Your task to perform on an android device: add a label to a message in the gmail app Image 0: 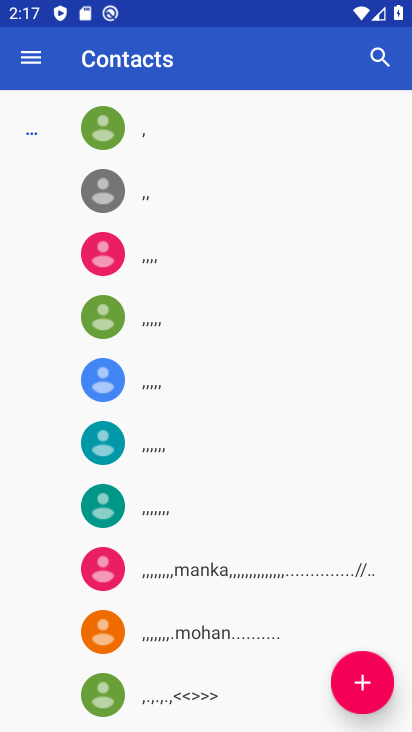
Step 0: press home button
Your task to perform on an android device: add a label to a message in the gmail app Image 1: 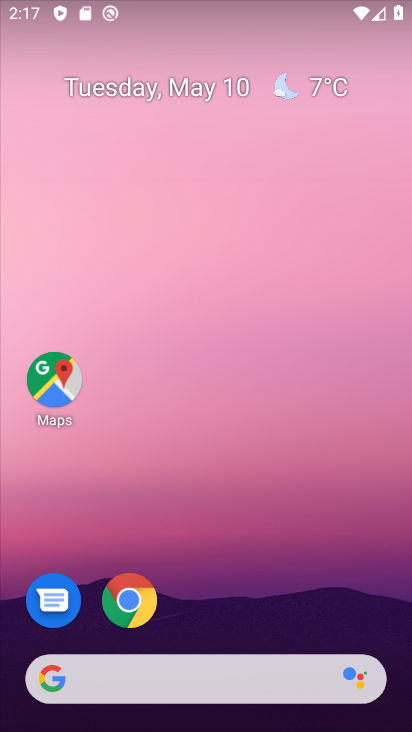
Step 1: drag from (219, 634) to (184, 212)
Your task to perform on an android device: add a label to a message in the gmail app Image 2: 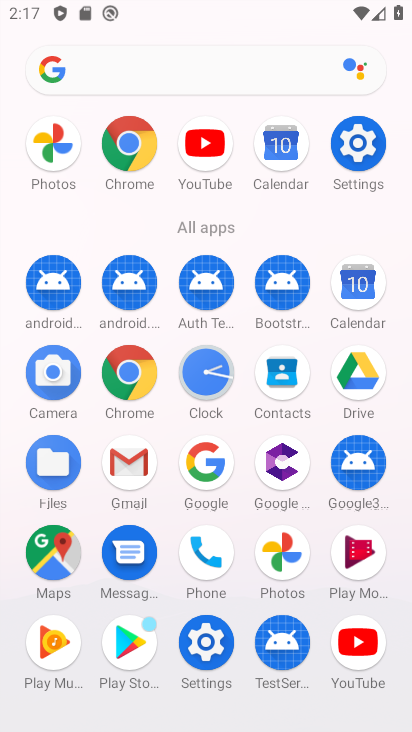
Step 2: click (136, 482)
Your task to perform on an android device: add a label to a message in the gmail app Image 3: 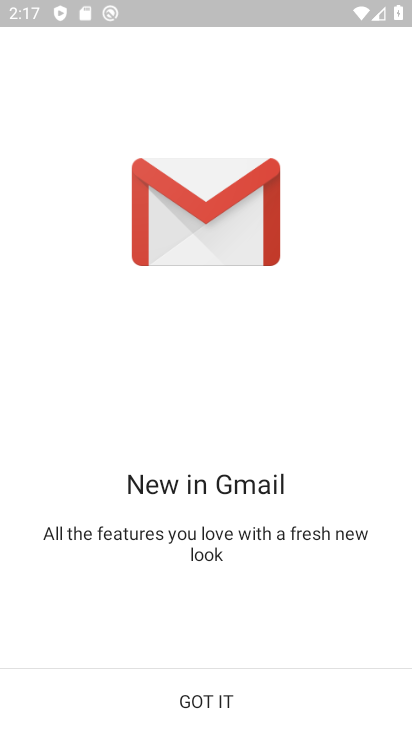
Step 3: press home button
Your task to perform on an android device: add a label to a message in the gmail app Image 4: 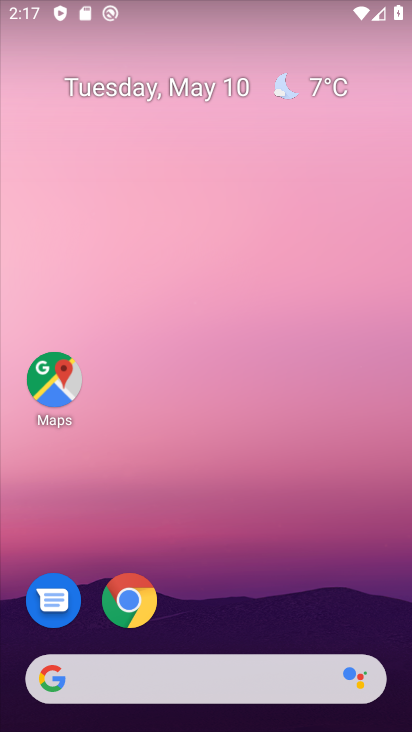
Step 4: drag from (226, 686) to (108, 17)
Your task to perform on an android device: add a label to a message in the gmail app Image 5: 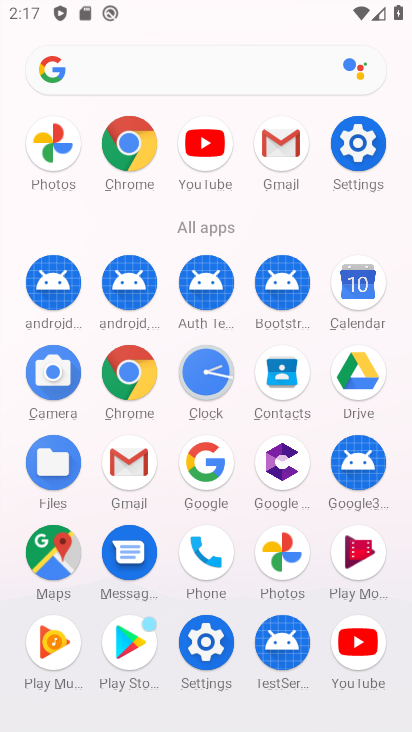
Step 5: click (288, 166)
Your task to perform on an android device: add a label to a message in the gmail app Image 6: 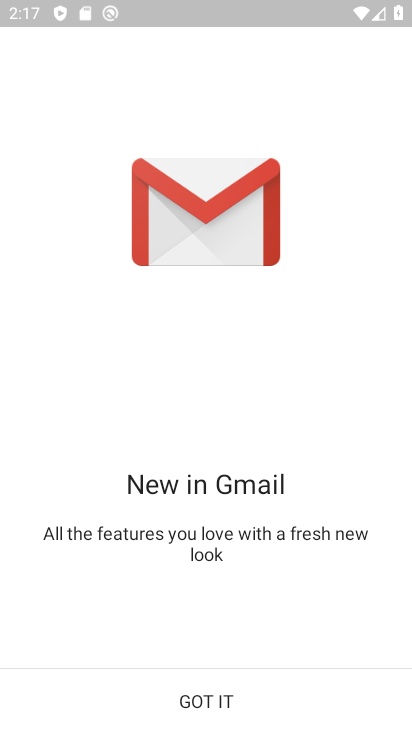
Step 6: click (190, 692)
Your task to perform on an android device: add a label to a message in the gmail app Image 7: 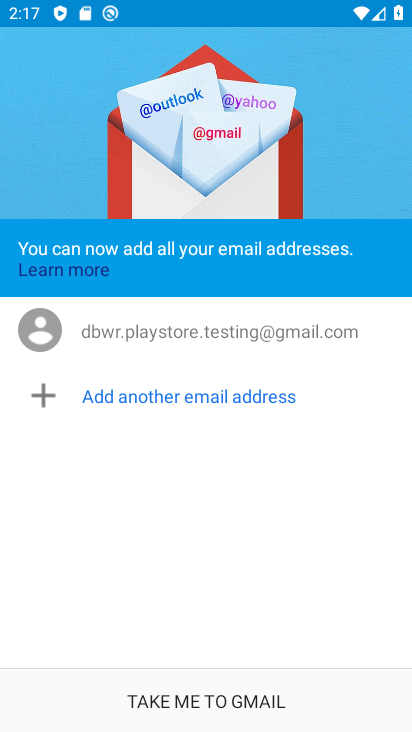
Step 7: click (254, 695)
Your task to perform on an android device: add a label to a message in the gmail app Image 8: 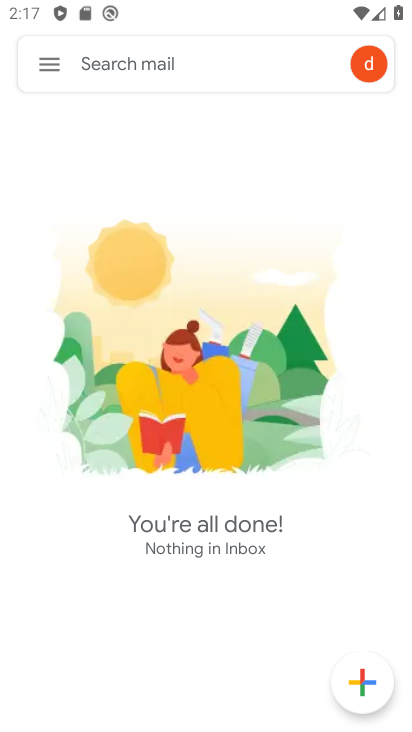
Step 8: click (37, 78)
Your task to perform on an android device: add a label to a message in the gmail app Image 9: 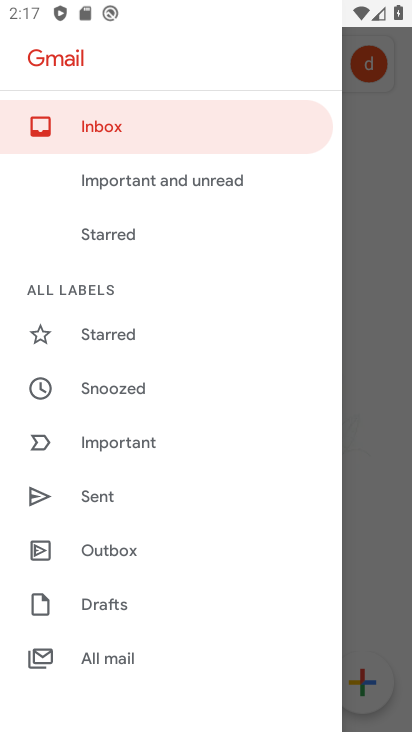
Step 9: click (125, 669)
Your task to perform on an android device: add a label to a message in the gmail app Image 10: 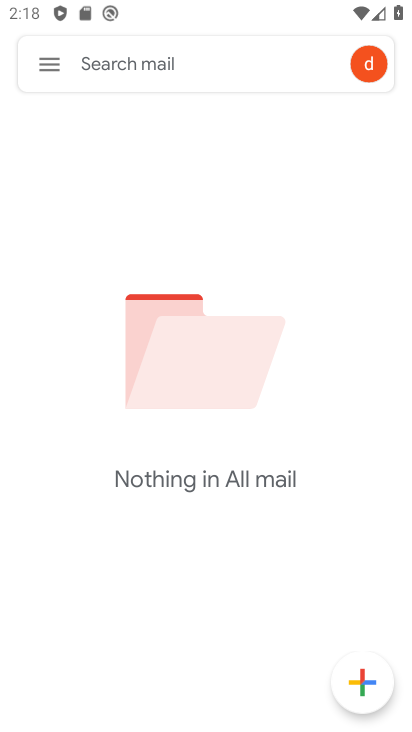
Step 10: task complete